Your task to perform on an android device: toggle notification dots Image 0: 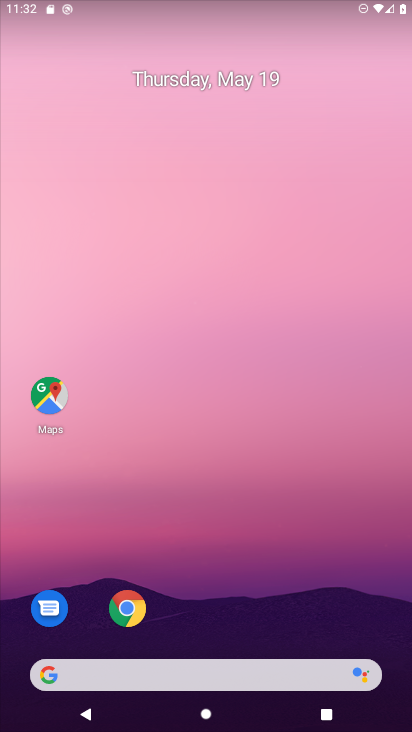
Step 0: drag from (350, 574) to (315, 92)
Your task to perform on an android device: toggle notification dots Image 1: 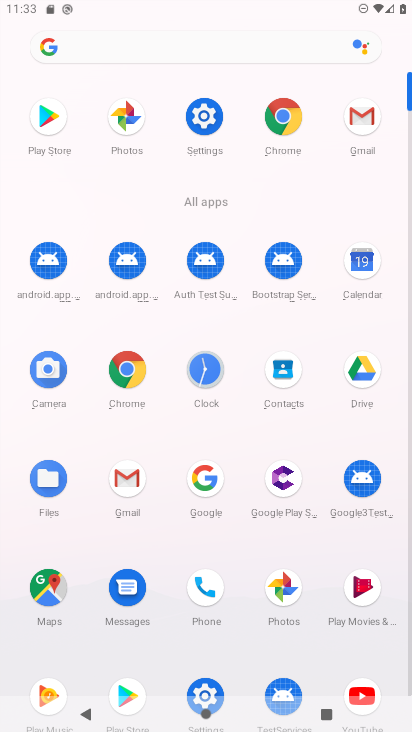
Step 1: drag from (250, 650) to (218, 534)
Your task to perform on an android device: toggle notification dots Image 2: 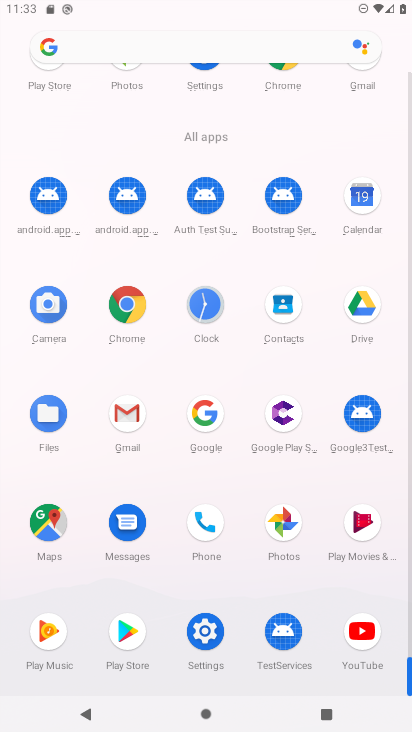
Step 2: click (196, 647)
Your task to perform on an android device: toggle notification dots Image 3: 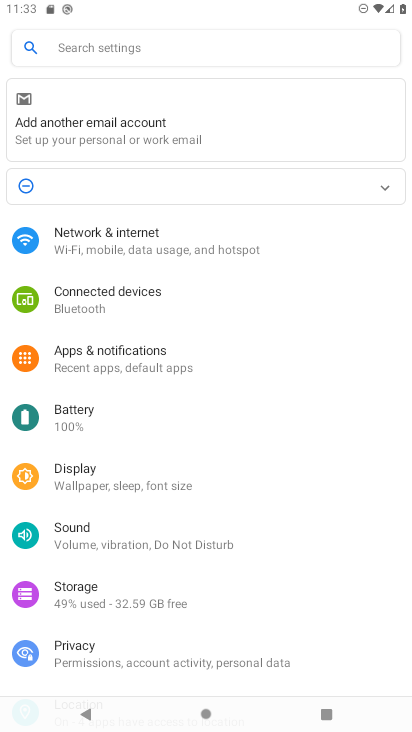
Step 3: click (119, 352)
Your task to perform on an android device: toggle notification dots Image 4: 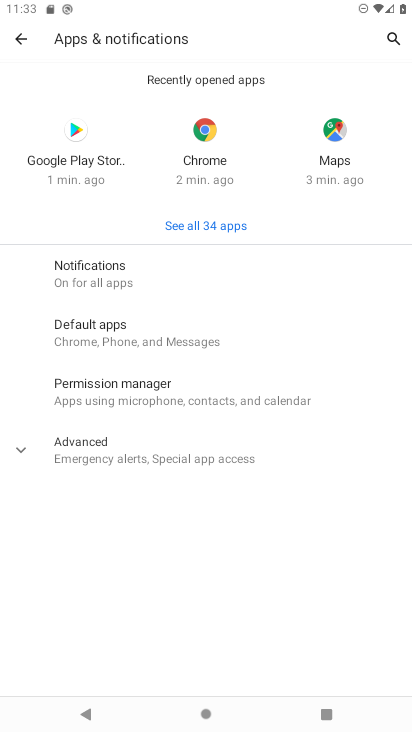
Step 4: click (81, 275)
Your task to perform on an android device: toggle notification dots Image 5: 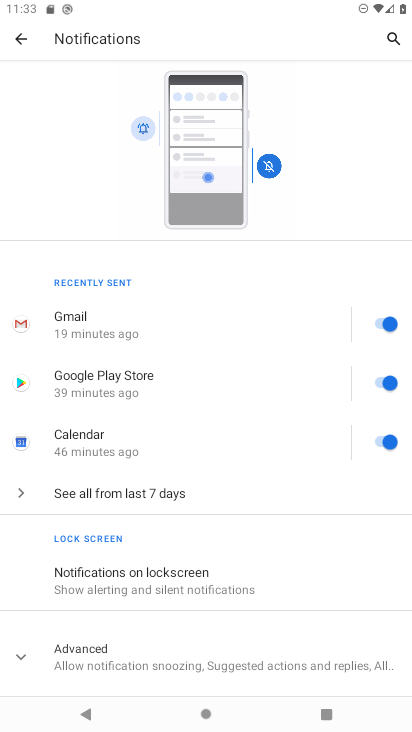
Step 5: drag from (170, 637) to (140, 285)
Your task to perform on an android device: toggle notification dots Image 6: 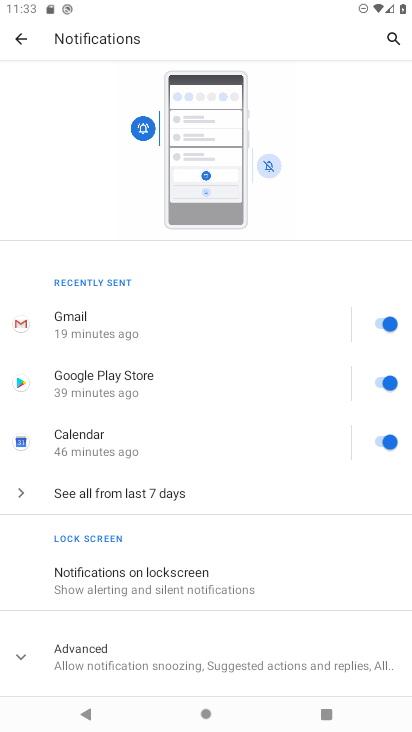
Step 6: click (133, 665)
Your task to perform on an android device: toggle notification dots Image 7: 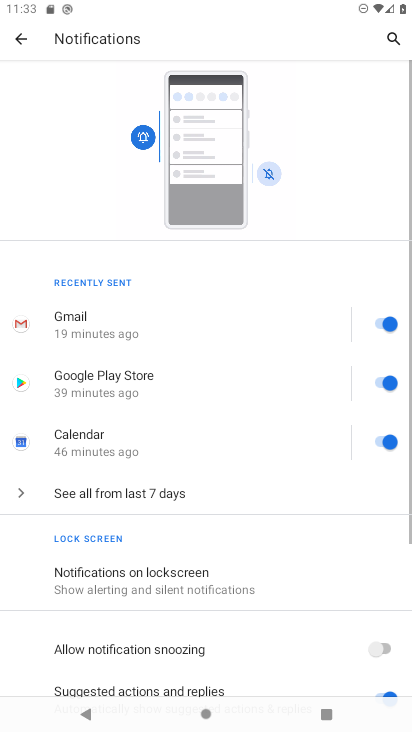
Step 7: drag from (133, 665) to (156, 376)
Your task to perform on an android device: toggle notification dots Image 8: 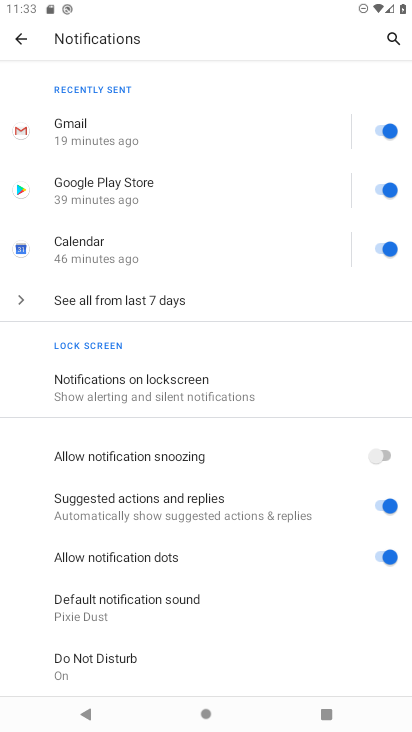
Step 8: click (399, 553)
Your task to perform on an android device: toggle notification dots Image 9: 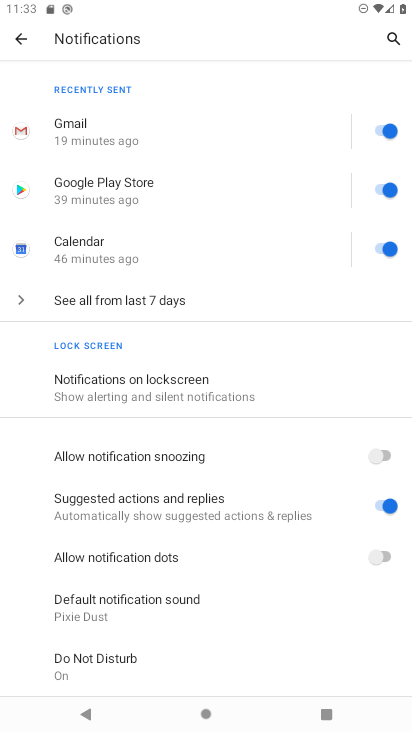
Step 9: task complete